Your task to perform on an android device: Open Google Chrome and open the bookmarks view Image 0: 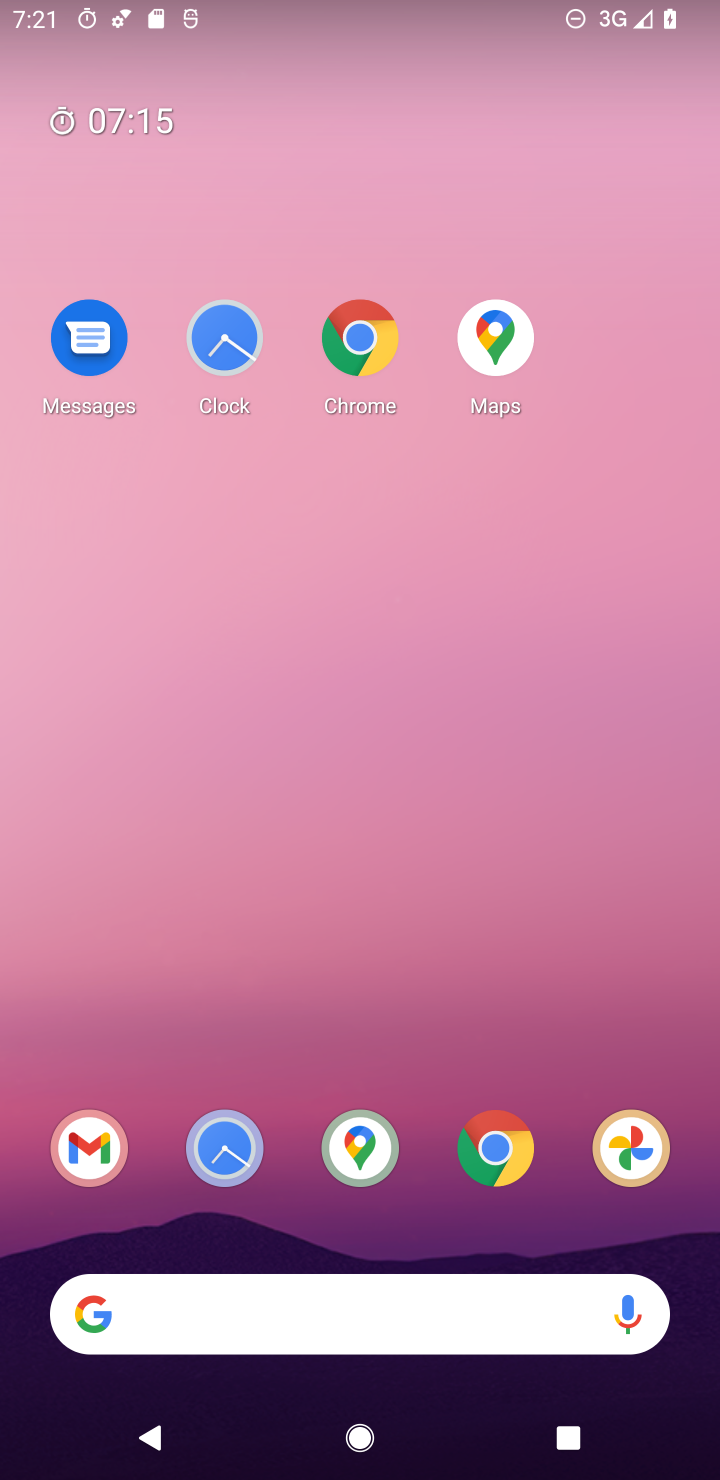
Step 0: drag from (295, 1201) to (376, 337)
Your task to perform on an android device: Open Google Chrome and open the bookmarks view Image 1: 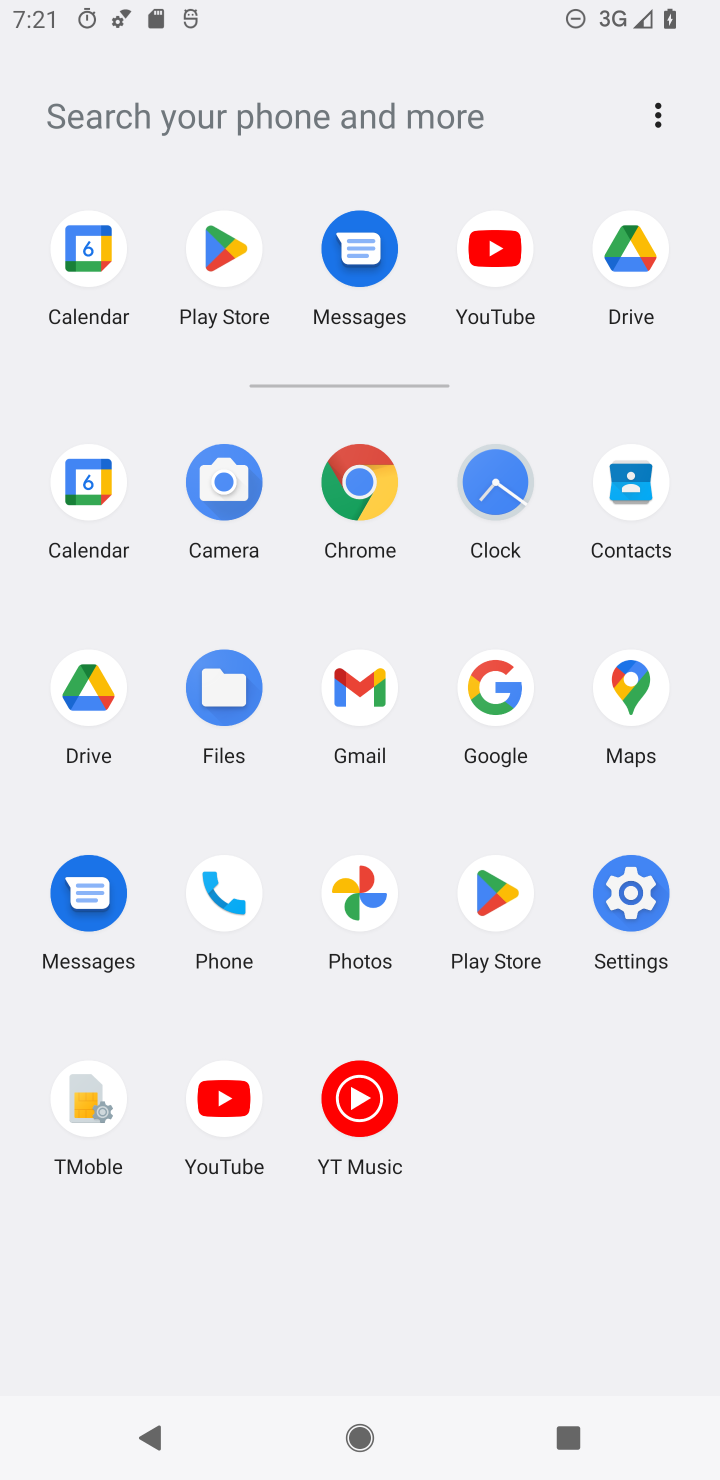
Step 1: click (361, 488)
Your task to perform on an android device: Open Google Chrome and open the bookmarks view Image 2: 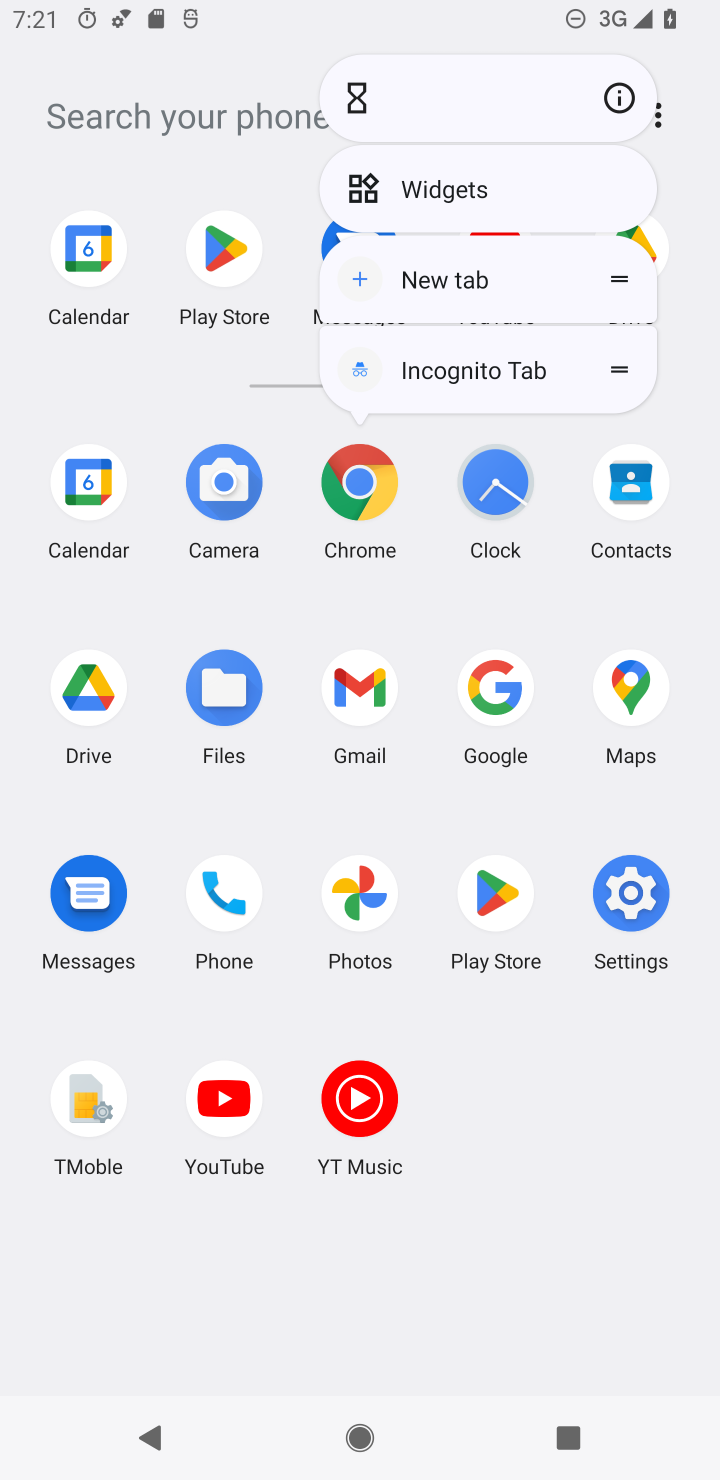
Step 2: click (624, 106)
Your task to perform on an android device: Open Google Chrome and open the bookmarks view Image 3: 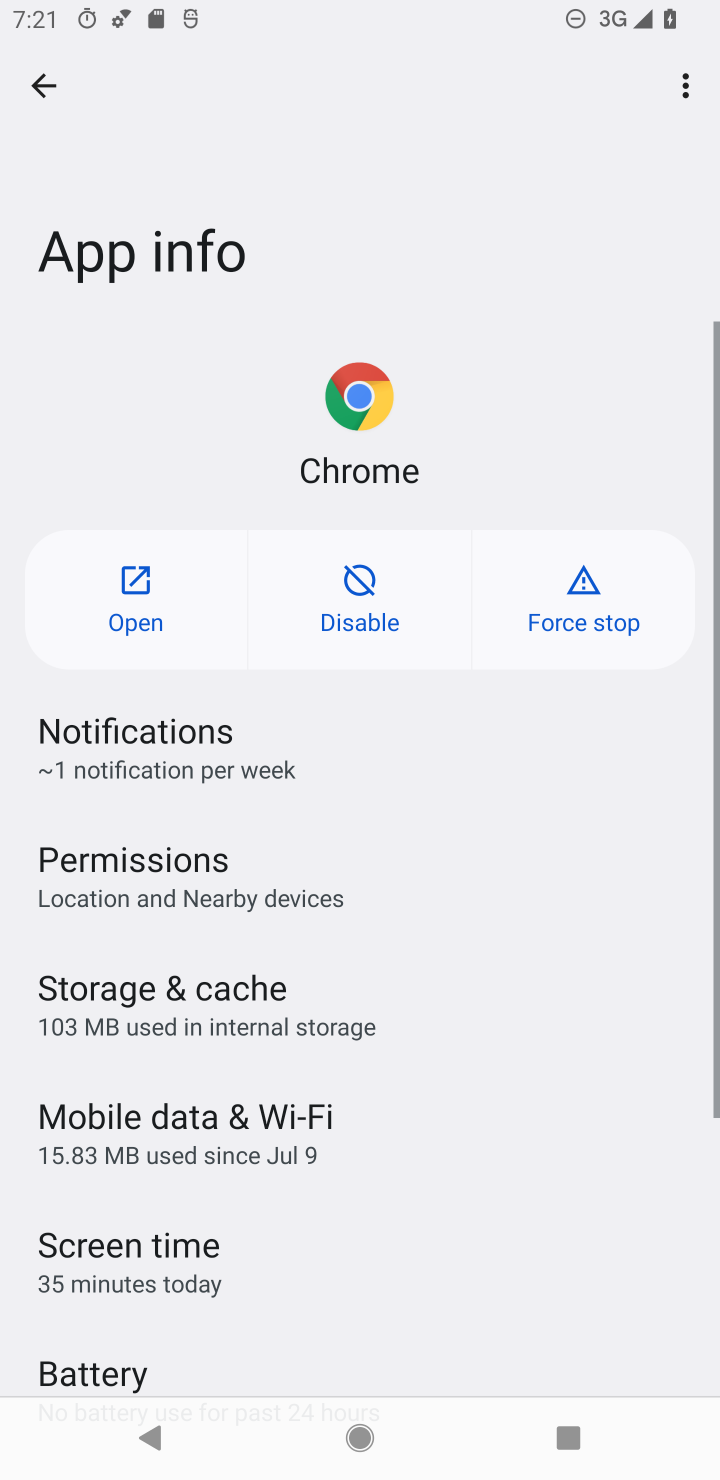
Step 3: click (139, 587)
Your task to perform on an android device: Open Google Chrome and open the bookmarks view Image 4: 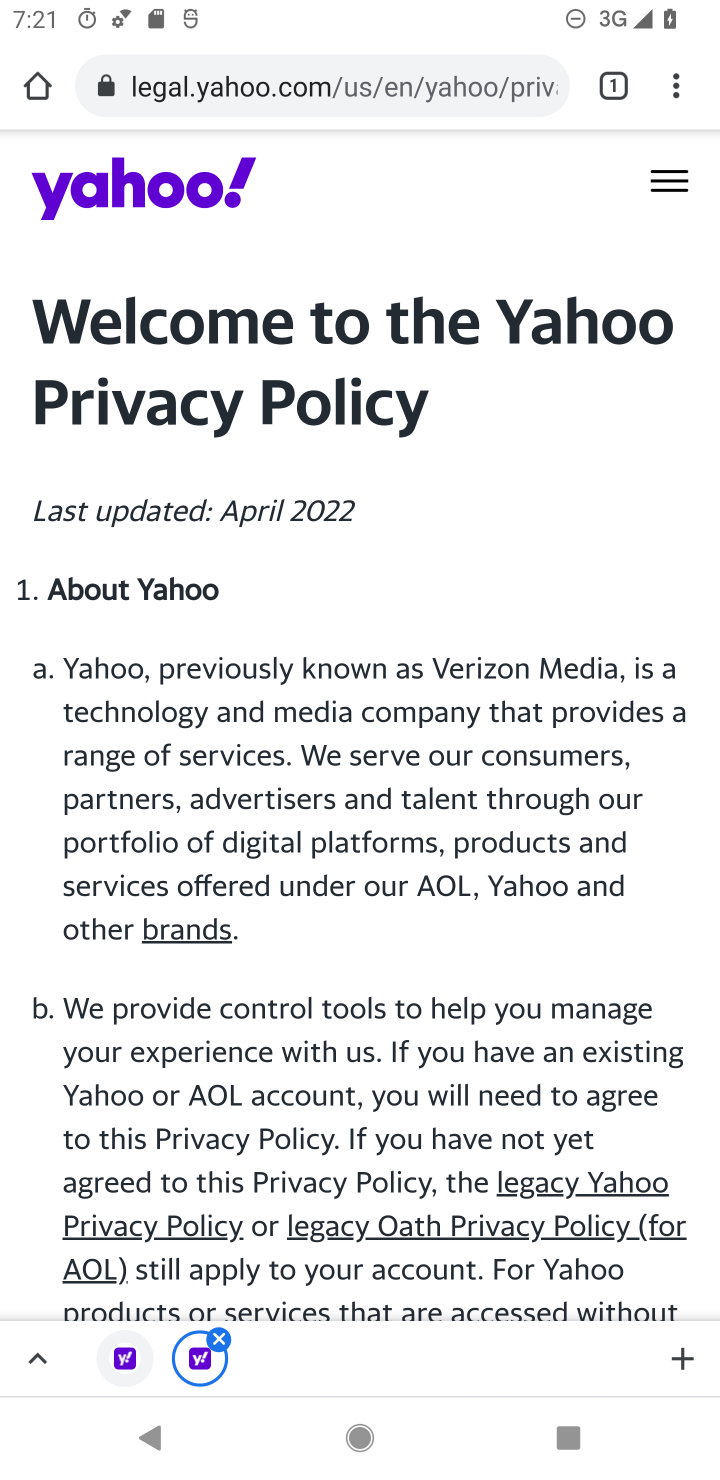
Step 4: task complete